Your task to perform on an android device: Show me popular games on the Play Store Image 0: 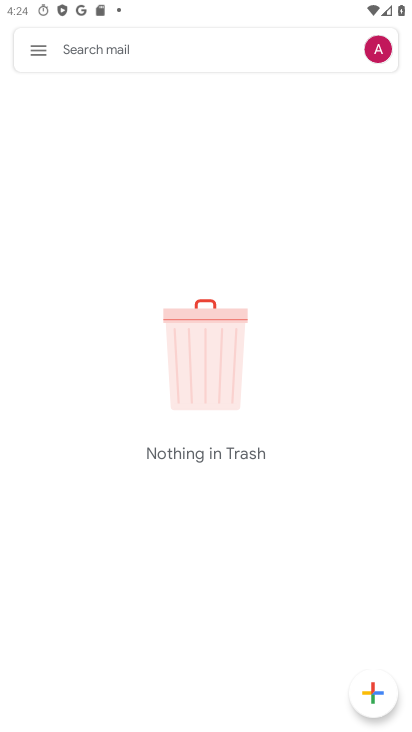
Step 0: press home button
Your task to perform on an android device: Show me popular games on the Play Store Image 1: 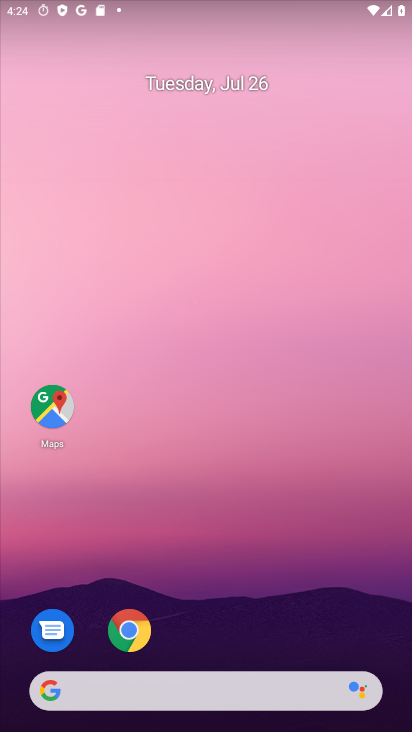
Step 1: drag from (328, 614) to (211, 83)
Your task to perform on an android device: Show me popular games on the Play Store Image 2: 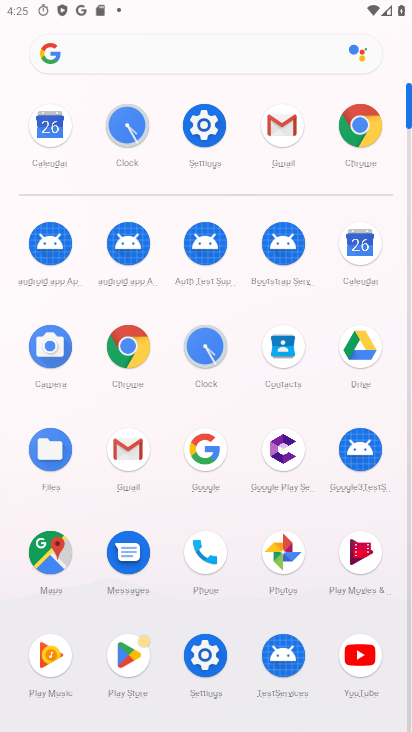
Step 2: click (121, 650)
Your task to perform on an android device: Show me popular games on the Play Store Image 3: 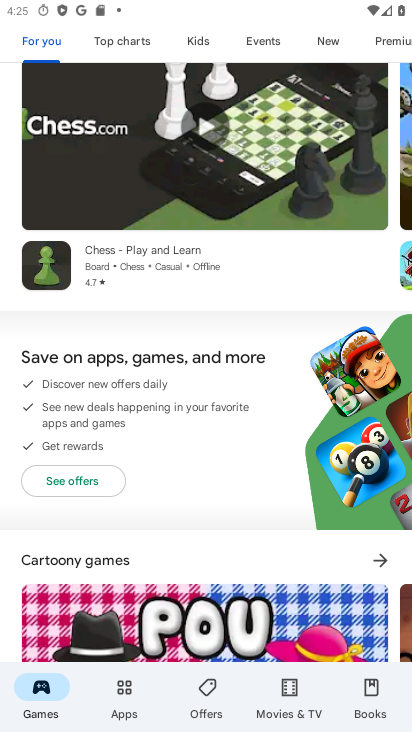
Step 3: click (189, 84)
Your task to perform on an android device: Show me popular games on the Play Store Image 4: 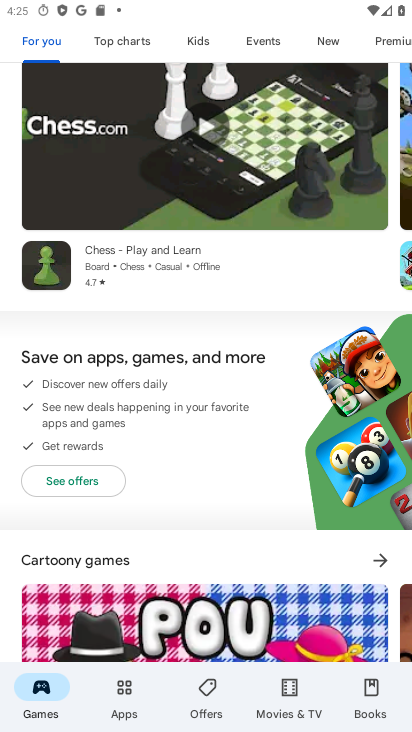
Step 4: task complete